Your task to perform on an android device: Search for seafood restaurants on Google Maps Image 0: 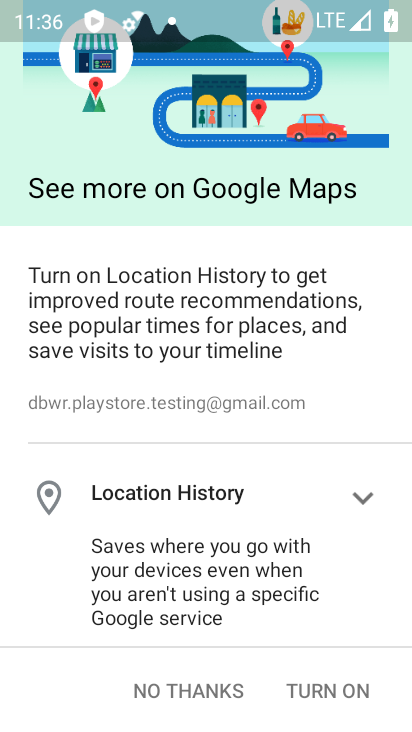
Step 0: drag from (281, 578) to (270, 21)
Your task to perform on an android device: Search for seafood restaurants on Google Maps Image 1: 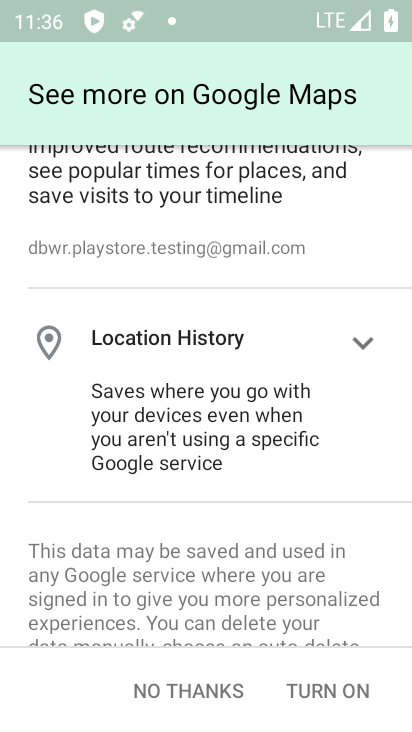
Step 1: click (176, 690)
Your task to perform on an android device: Search for seafood restaurants on Google Maps Image 2: 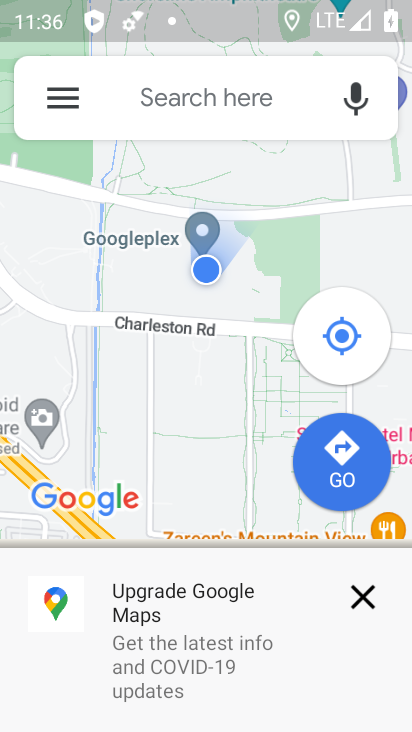
Step 2: click (364, 600)
Your task to perform on an android device: Search for seafood restaurants on Google Maps Image 3: 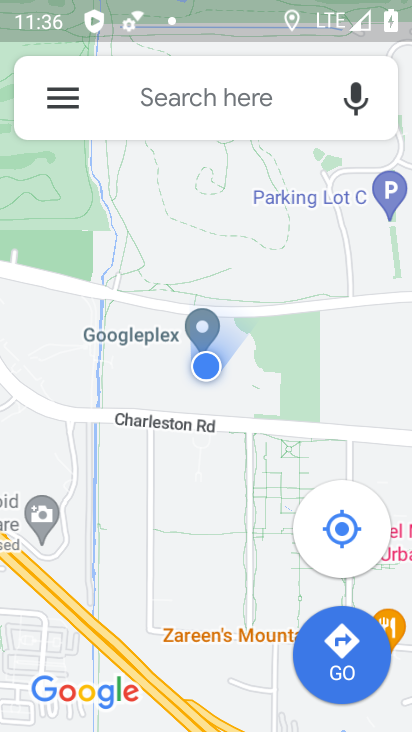
Step 3: click (180, 90)
Your task to perform on an android device: Search for seafood restaurants on Google Maps Image 4: 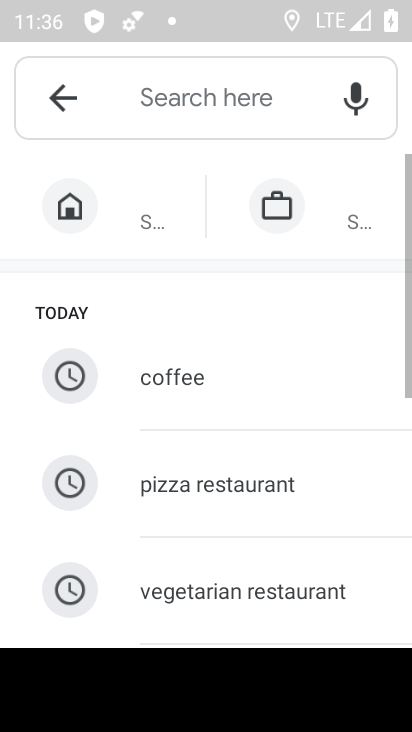
Step 4: drag from (219, 560) to (179, 107)
Your task to perform on an android device: Search for seafood restaurants on Google Maps Image 5: 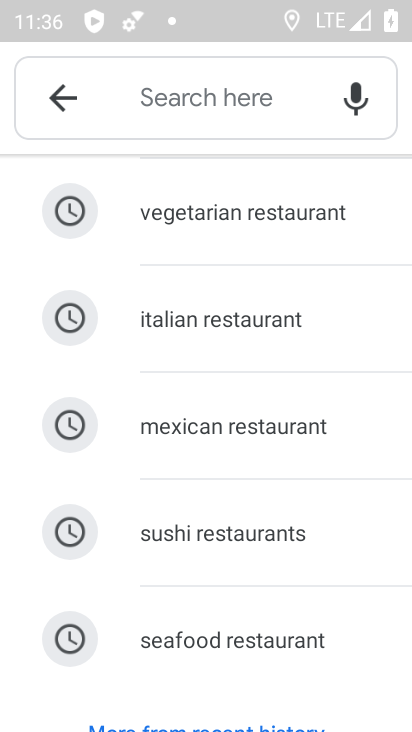
Step 5: click (207, 645)
Your task to perform on an android device: Search for seafood restaurants on Google Maps Image 6: 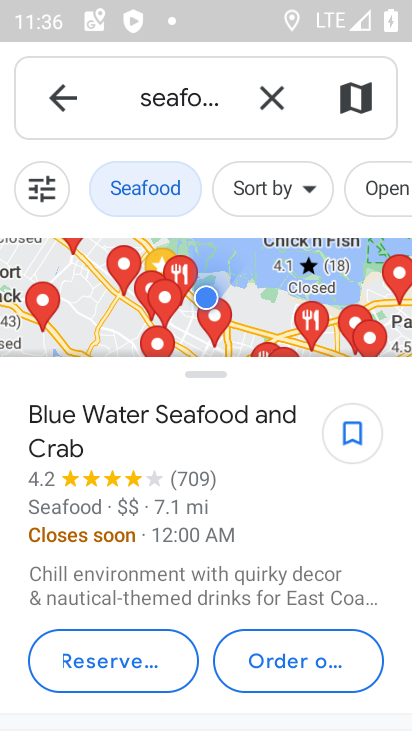
Step 6: task complete